Your task to perform on an android device: Open Chrome and go to settings Image 0: 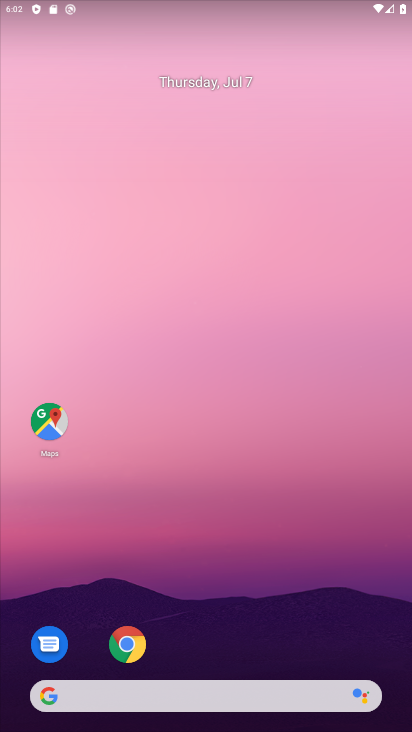
Step 0: drag from (340, 659) to (289, 7)
Your task to perform on an android device: Open Chrome and go to settings Image 1: 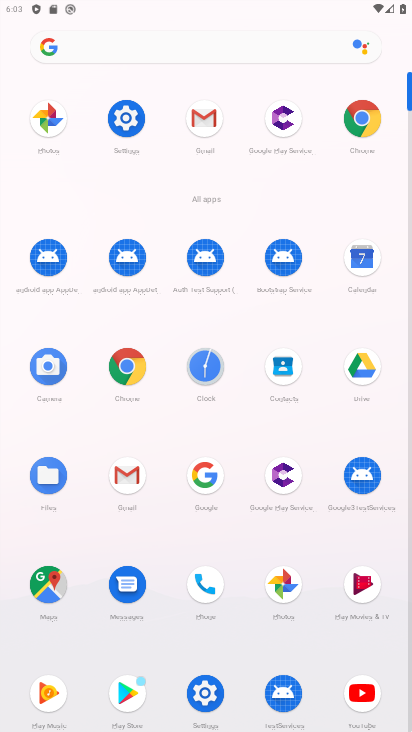
Step 1: click (363, 126)
Your task to perform on an android device: Open Chrome and go to settings Image 2: 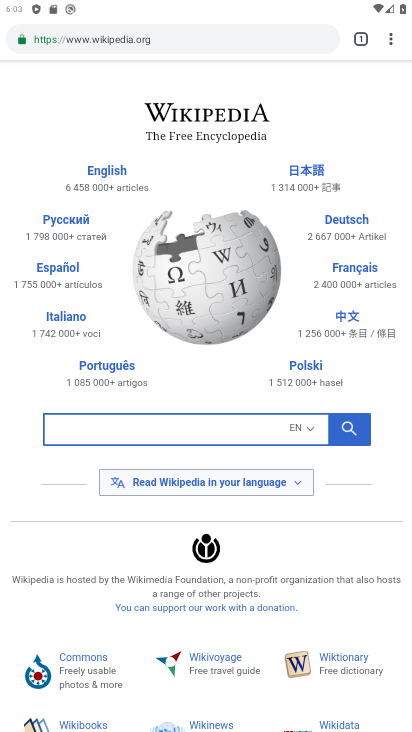
Step 2: task complete